Your task to perform on an android device: Go to sound settings Image 0: 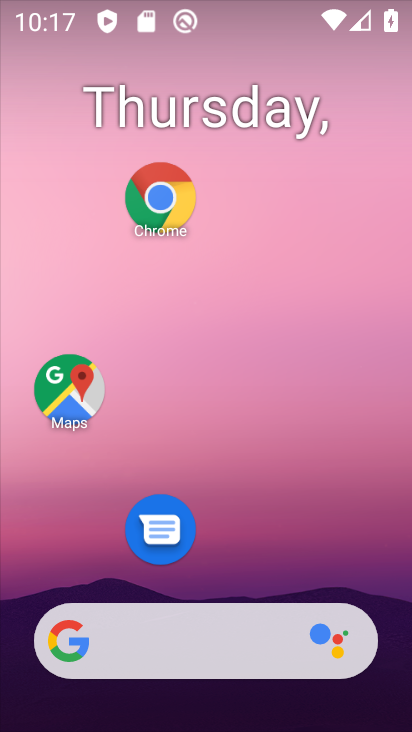
Step 0: drag from (267, 553) to (176, 48)
Your task to perform on an android device: Go to sound settings Image 1: 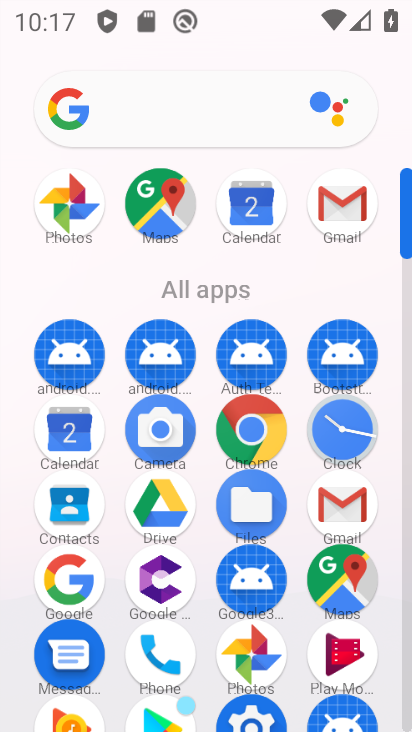
Step 1: click (245, 718)
Your task to perform on an android device: Go to sound settings Image 2: 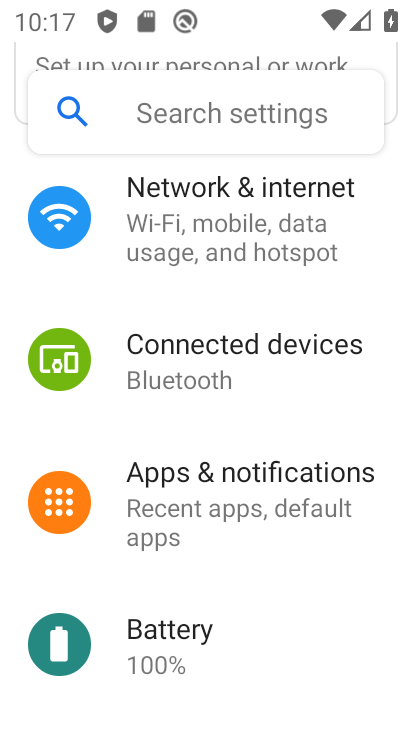
Step 2: drag from (229, 576) to (216, 96)
Your task to perform on an android device: Go to sound settings Image 3: 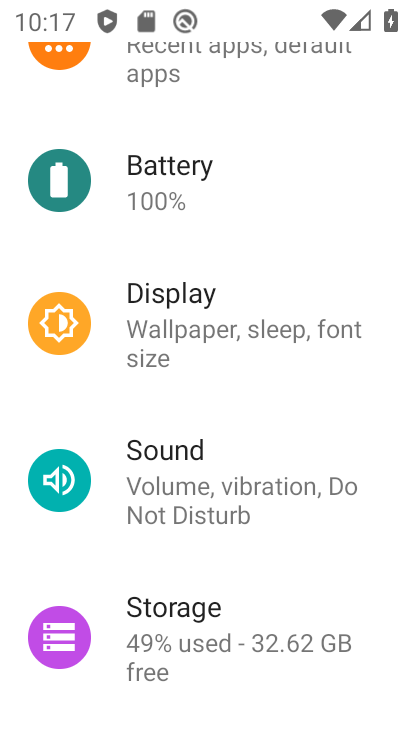
Step 3: click (145, 453)
Your task to perform on an android device: Go to sound settings Image 4: 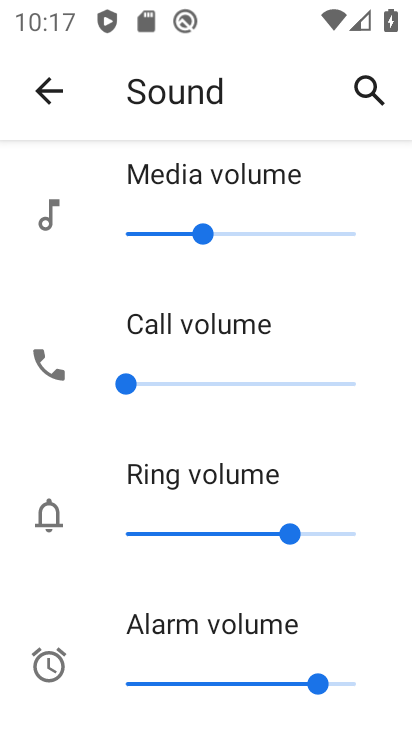
Step 4: task complete